Your task to perform on an android device: Go to Google Image 0: 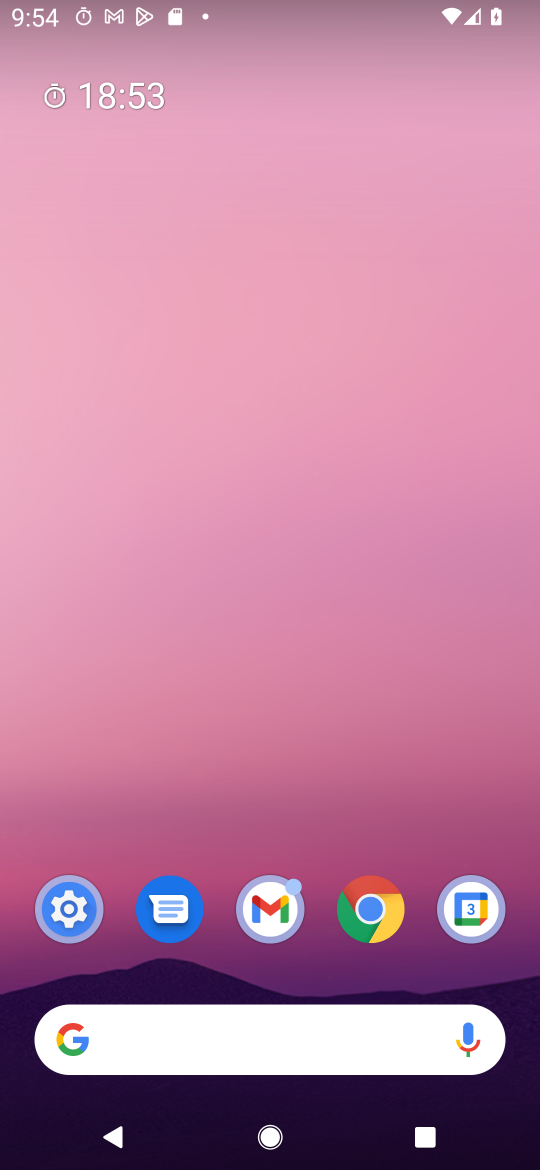
Step 0: press home button
Your task to perform on an android device: Go to Google Image 1: 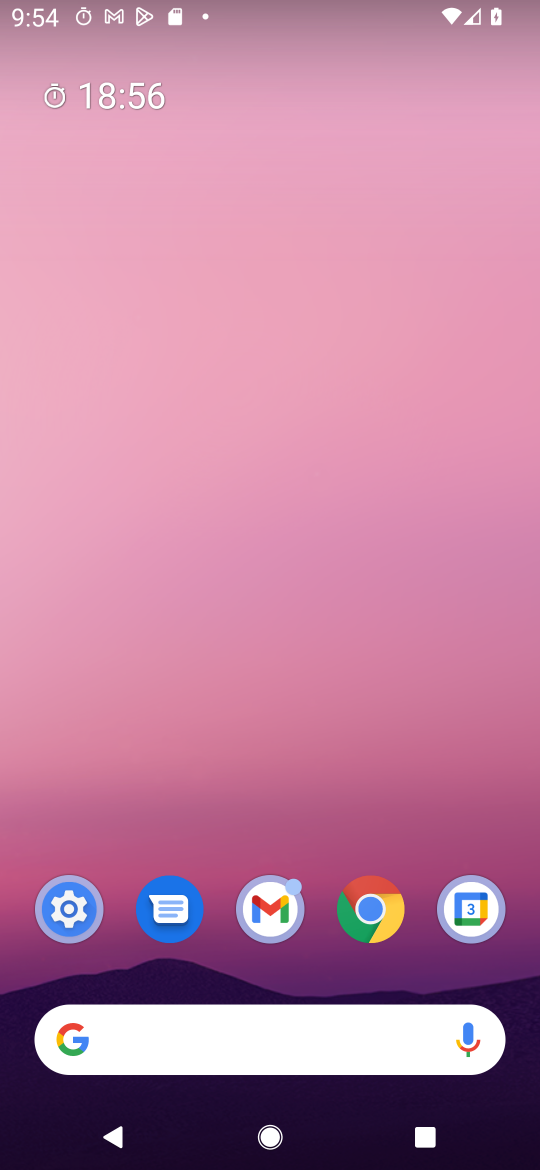
Step 1: drag from (421, 815) to (380, 216)
Your task to perform on an android device: Go to Google Image 2: 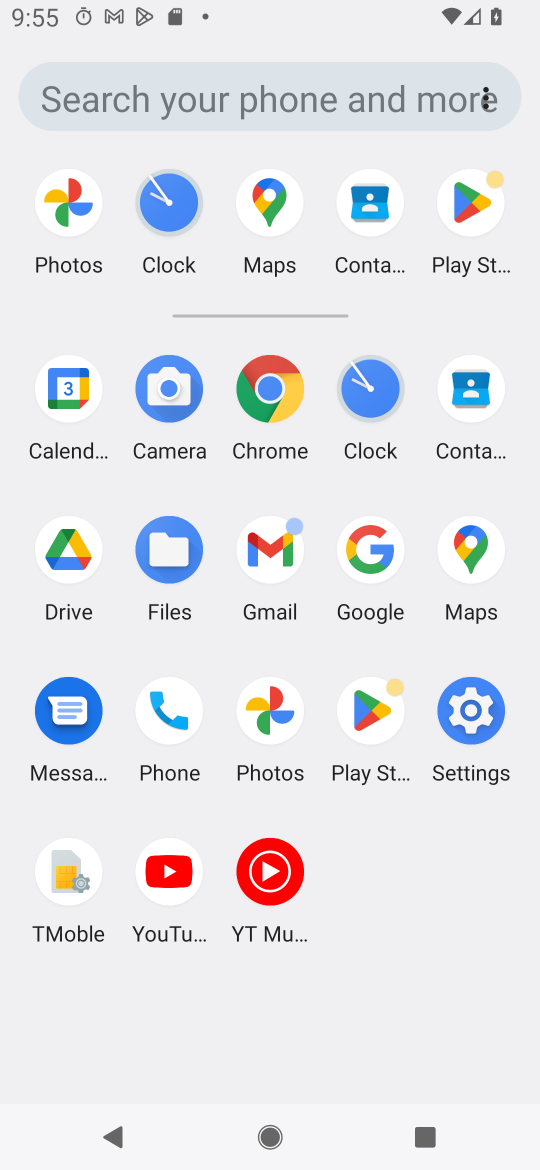
Step 2: click (377, 567)
Your task to perform on an android device: Go to Google Image 3: 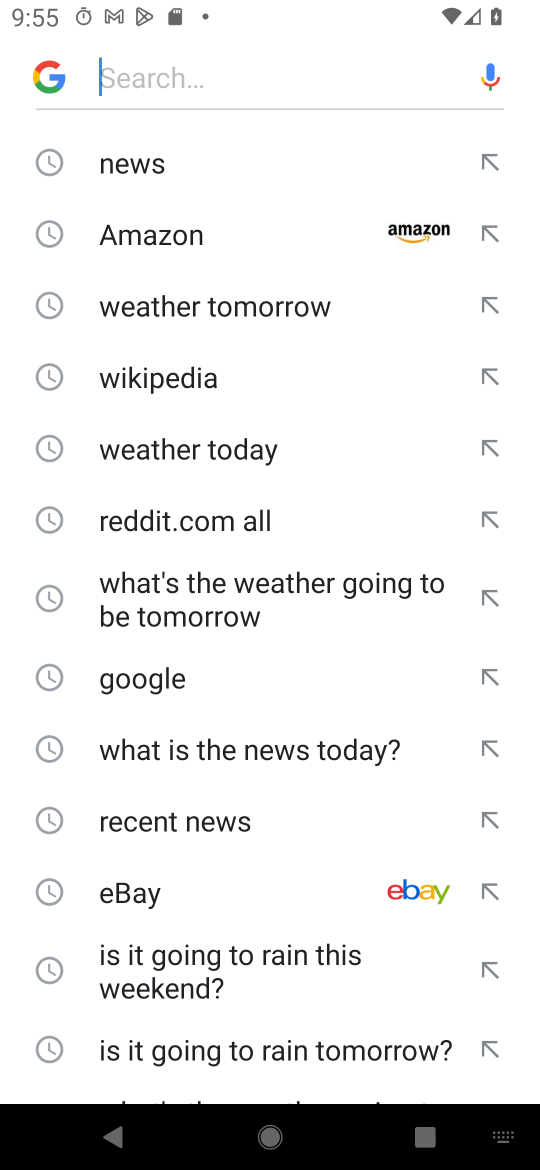
Step 3: task complete